Your task to perform on an android device: check battery use Image 0: 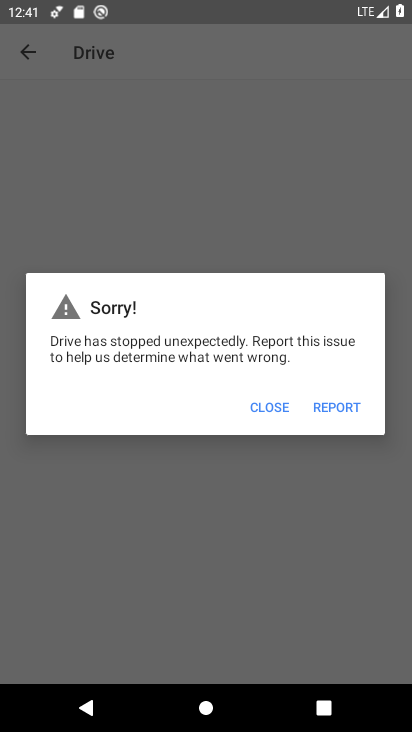
Step 0: press home button
Your task to perform on an android device: check battery use Image 1: 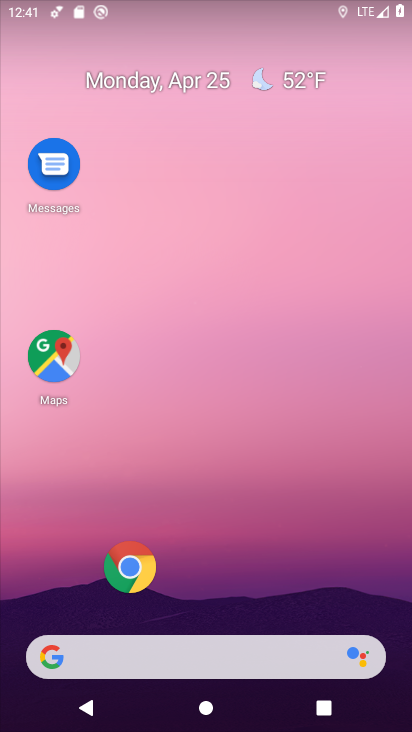
Step 1: drag from (285, 489) to (323, 137)
Your task to perform on an android device: check battery use Image 2: 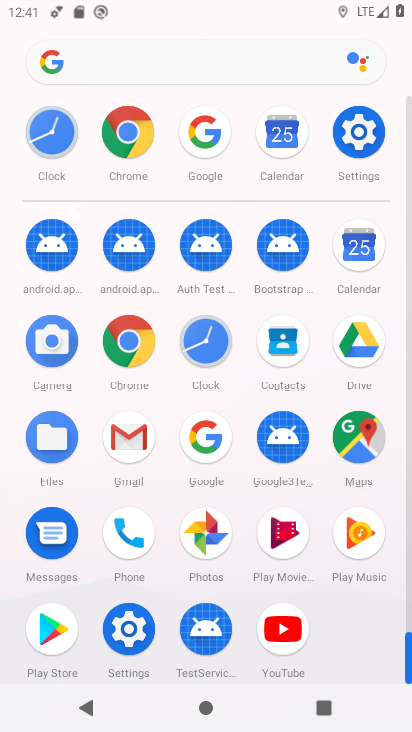
Step 2: click (358, 144)
Your task to perform on an android device: check battery use Image 3: 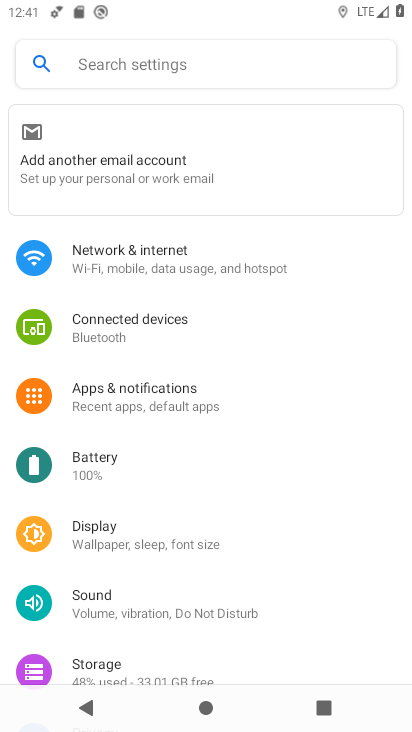
Step 3: click (185, 471)
Your task to perform on an android device: check battery use Image 4: 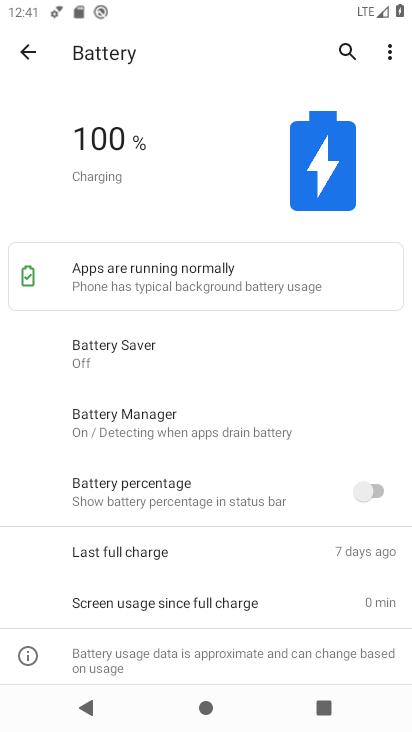
Step 4: task complete